Your task to perform on an android device: Go to Maps Image 0: 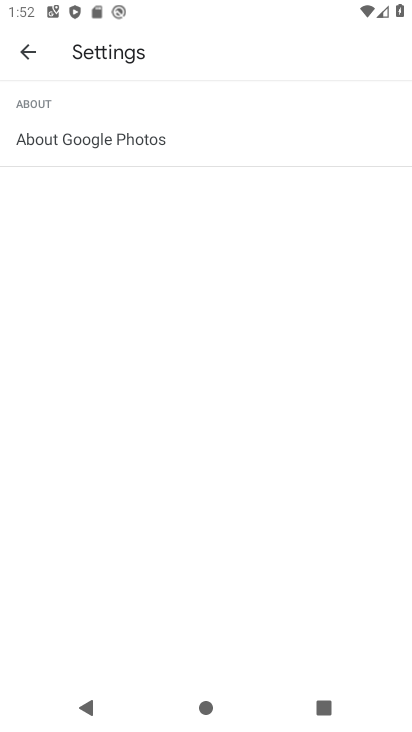
Step 0: press home button
Your task to perform on an android device: Go to Maps Image 1: 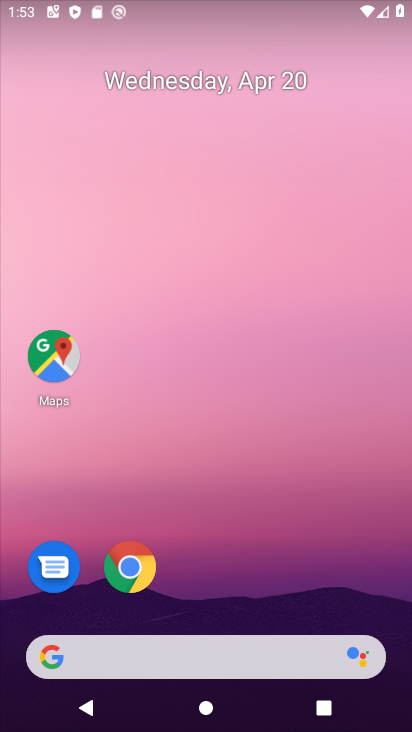
Step 1: click (49, 358)
Your task to perform on an android device: Go to Maps Image 2: 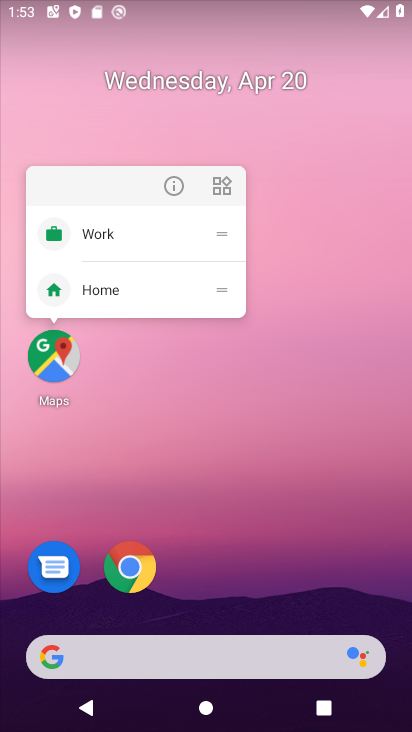
Step 2: click (49, 358)
Your task to perform on an android device: Go to Maps Image 3: 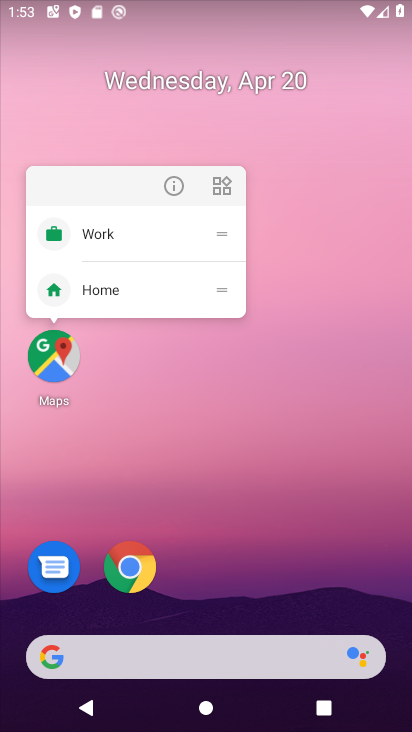
Step 3: click (49, 358)
Your task to perform on an android device: Go to Maps Image 4: 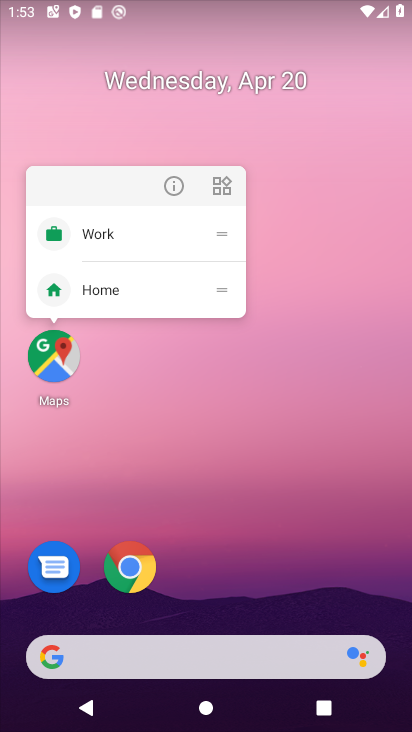
Step 4: click (49, 358)
Your task to perform on an android device: Go to Maps Image 5: 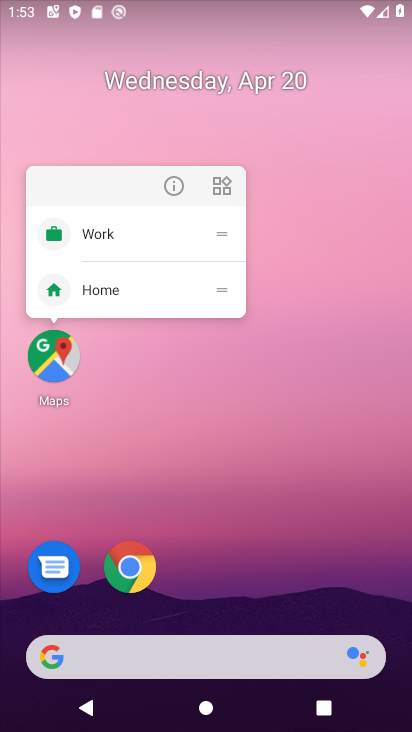
Step 5: click (47, 358)
Your task to perform on an android device: Go to Maps Image 6: 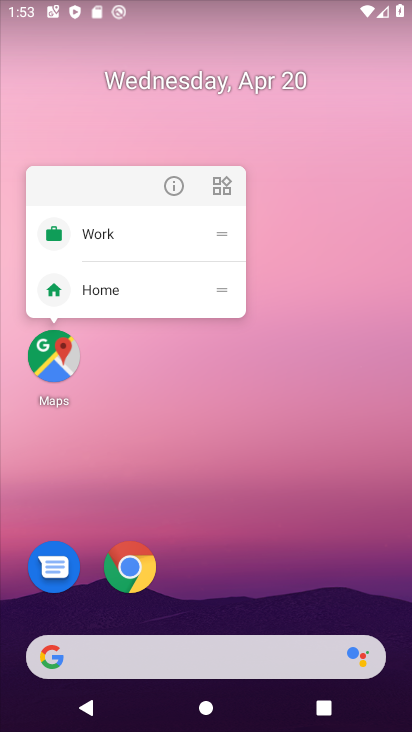
Step 6: click (47, 358)
Your task to perform on an android device: Go to Maps Image 7: 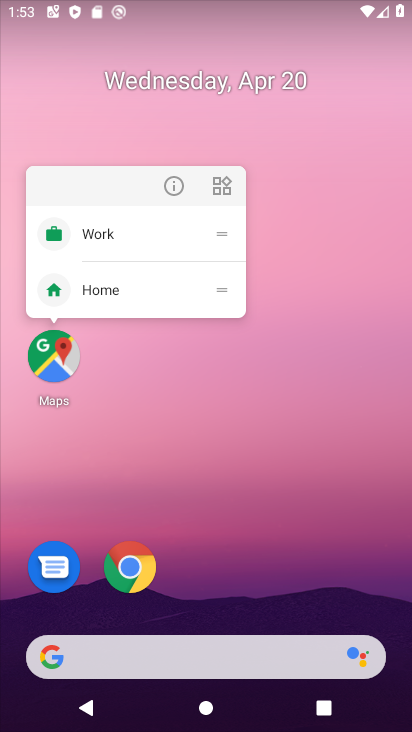
Step 7: click (46, 357)
Your task to perform on an android device: Go to Maps Image 8: 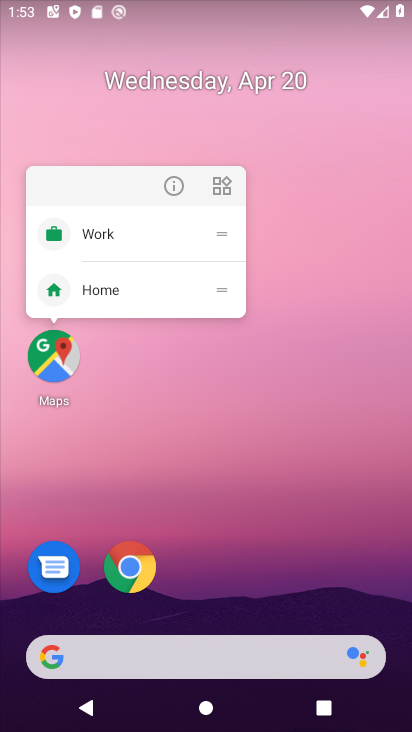
Step 8: click (46, 357)
Your task to perform on an android device: Go to Maps Image 9: 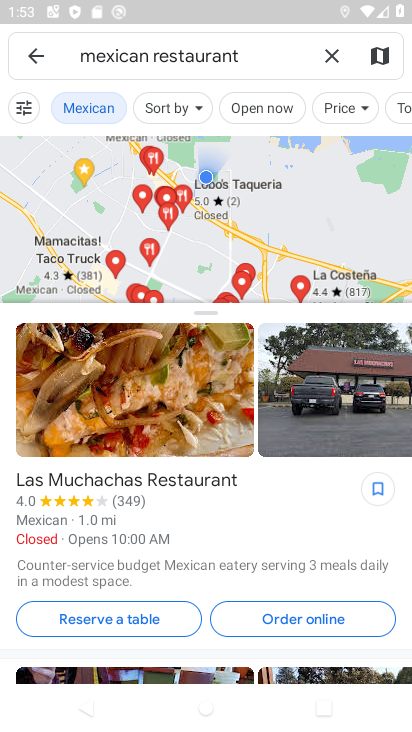
Step 9: task complete